Your task to perform on an android device: turn notification dots on Image 0: 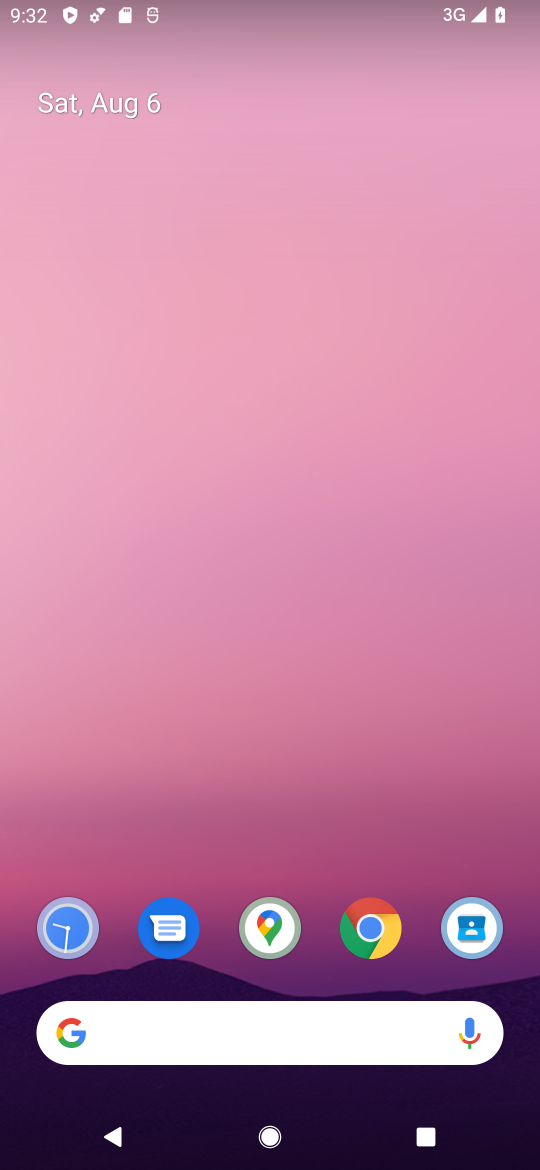
Step 0: drag from (239, 818) to (239, 155)
Your task to perform on an android device: turn notification dots on Image 1: 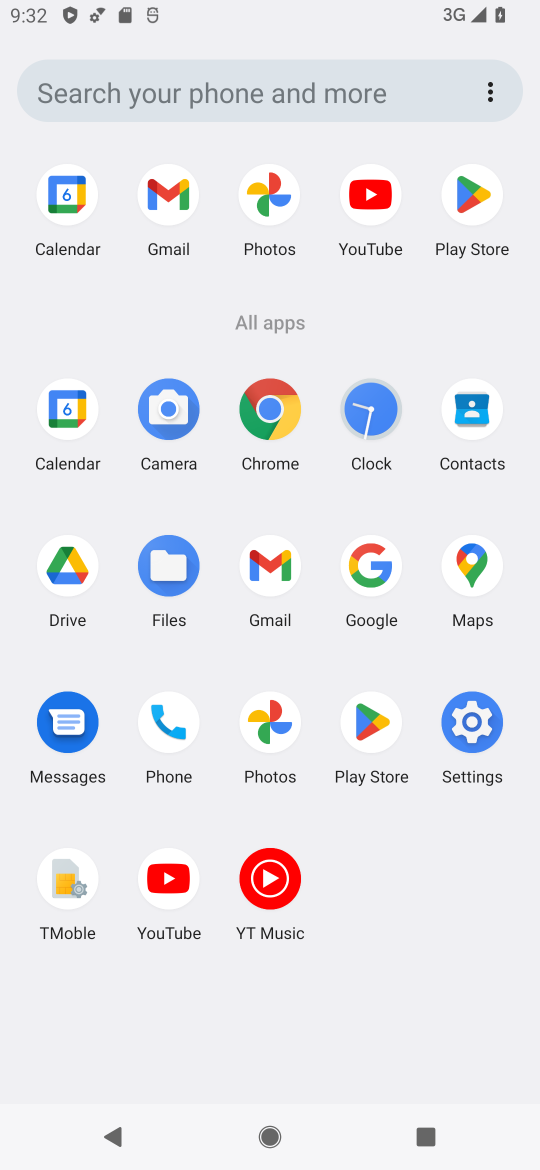
Step 1: click (468, 711)
Your task to perform on an android device: turn notification dots on Image 2: 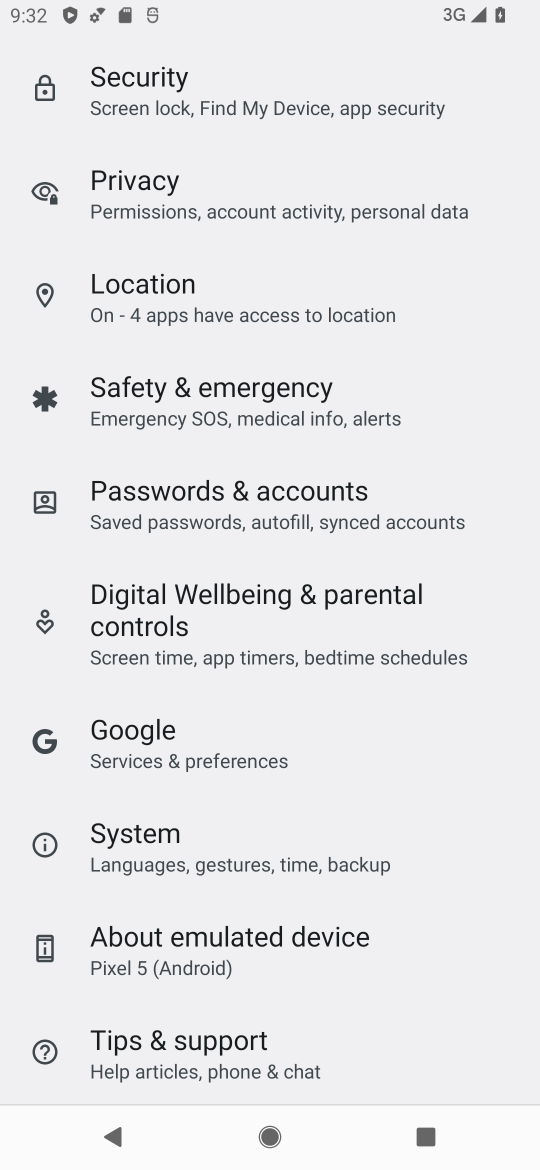
Step 2: drag from (288, 133) to (174, 745)
Your task to perform on an android device: turn notification dots on Image 3: 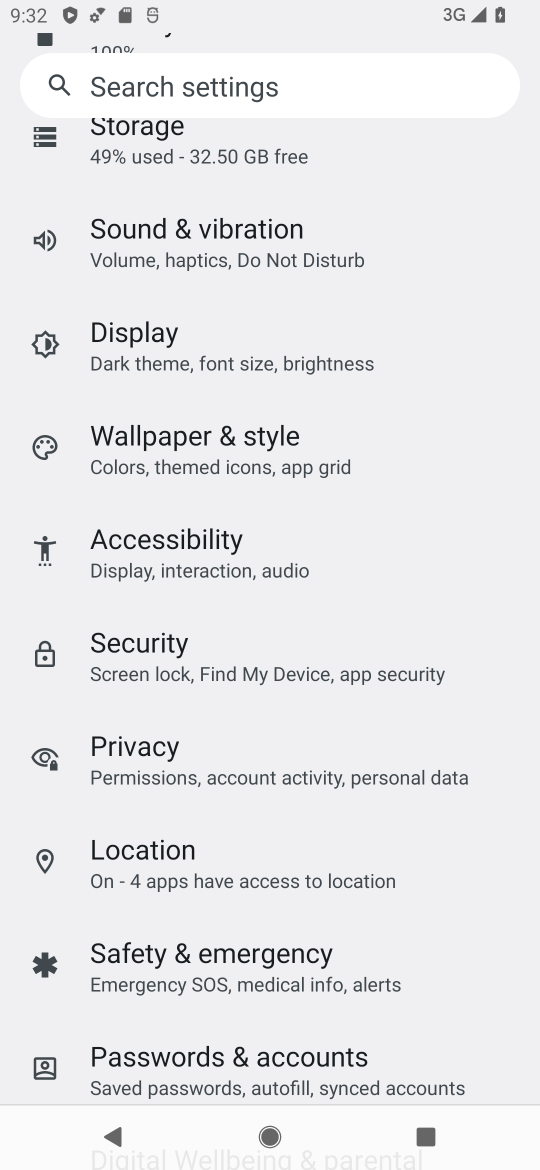
Step 3: drag from (370, 197) to (370, 825)
Your task to perform on an android device: turn notification dots on Image 4: 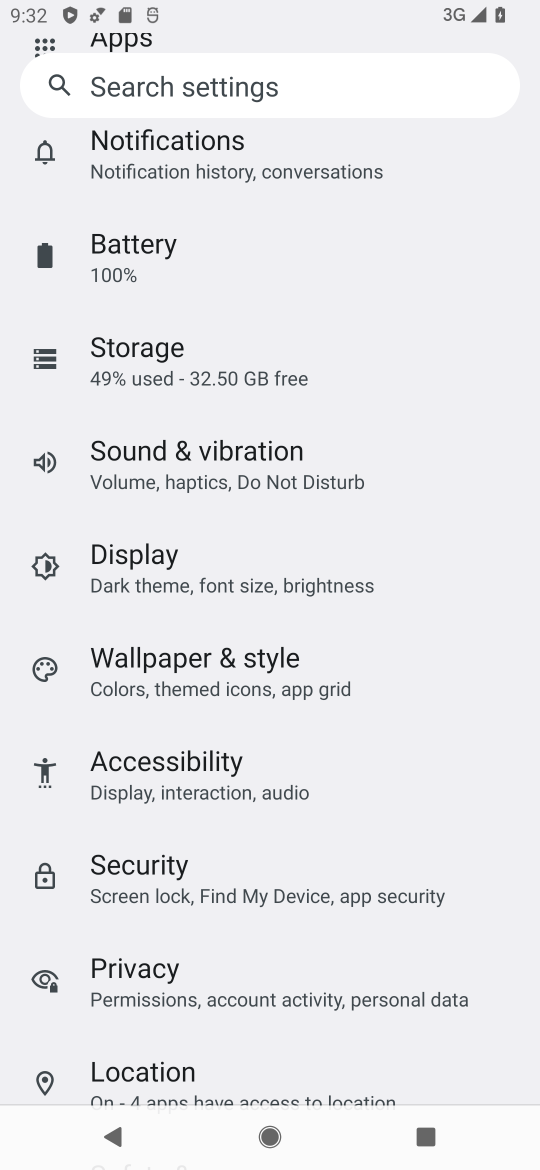
Step 4: click (167, 132)
Your task to perform on an android device: turn notification dots on Image 5: 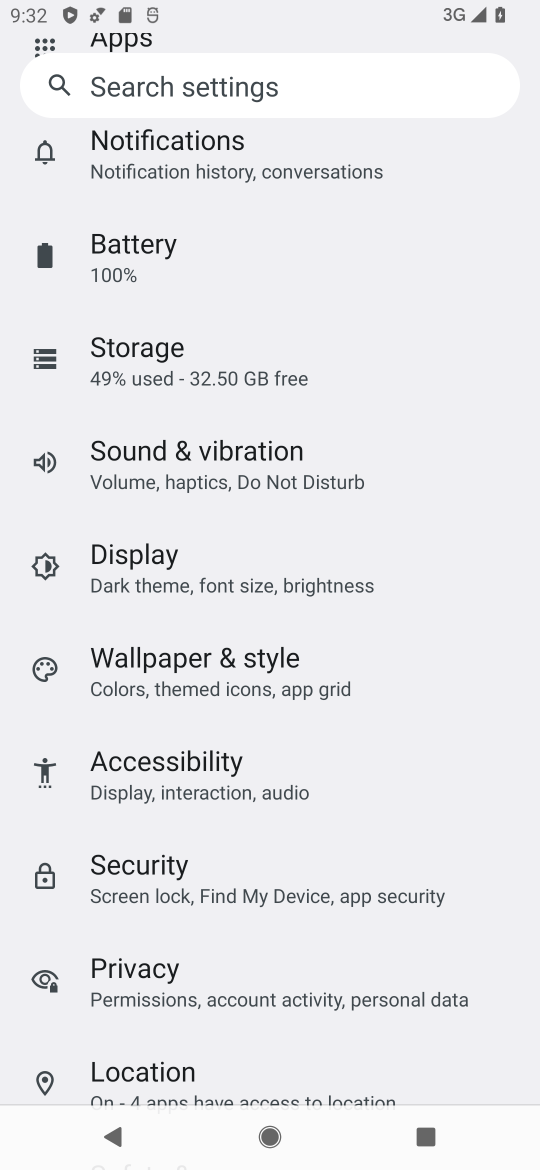
Step 5: drag from (389, 285) to (384, 560)
Your task to perform on an android device: turn notification dots on Image 6: 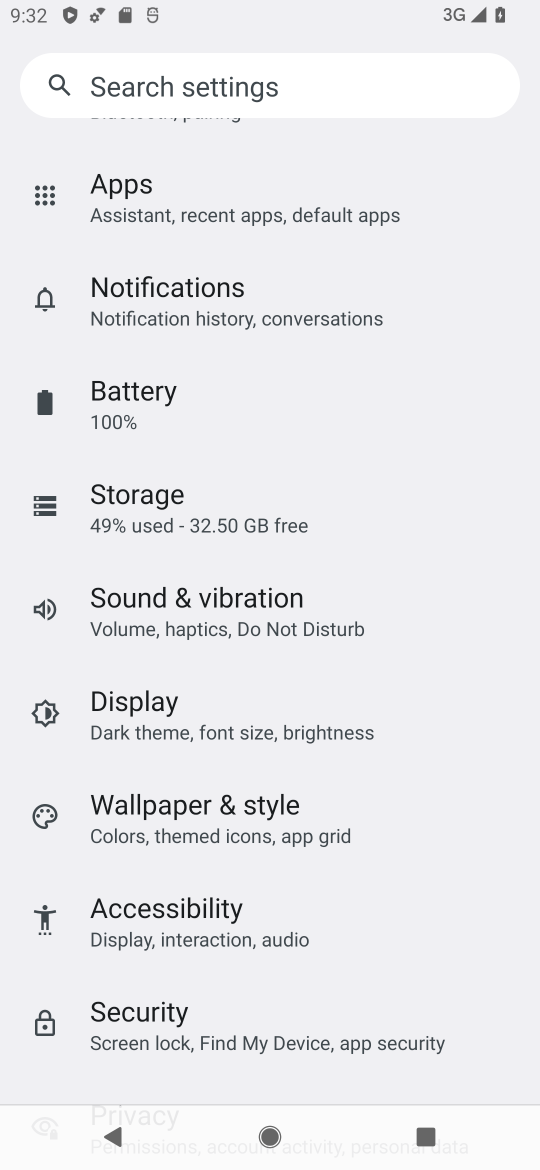
Step 6: click (189, 283)
Your task to perform on an android device: turn notification dots on Image 7: 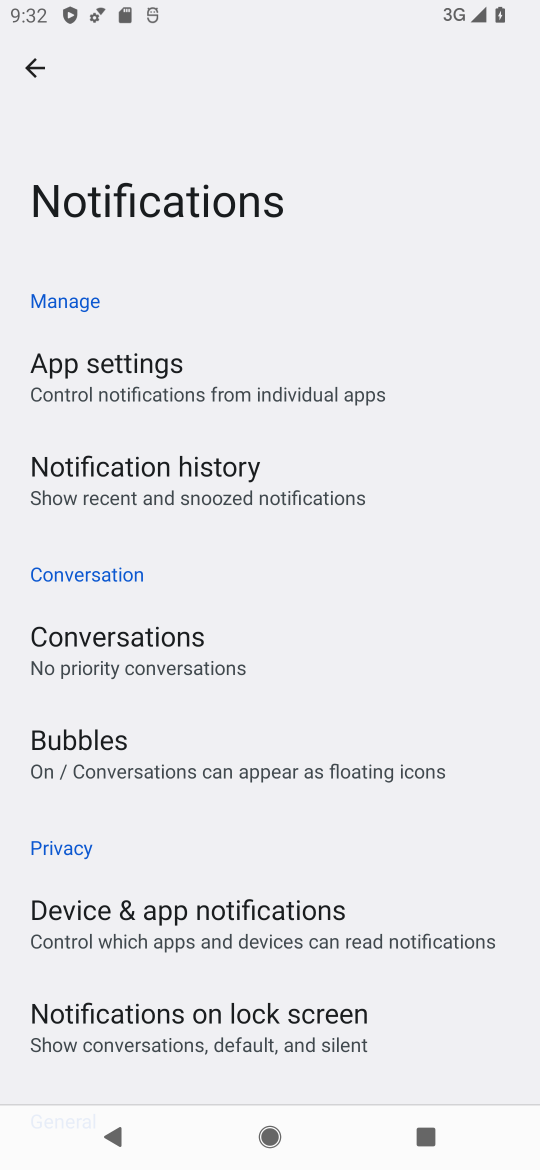
Step 7: drag from (318, 823) to (322, 472)
Your task to perform on an android device: turn notification dots on Image 8: 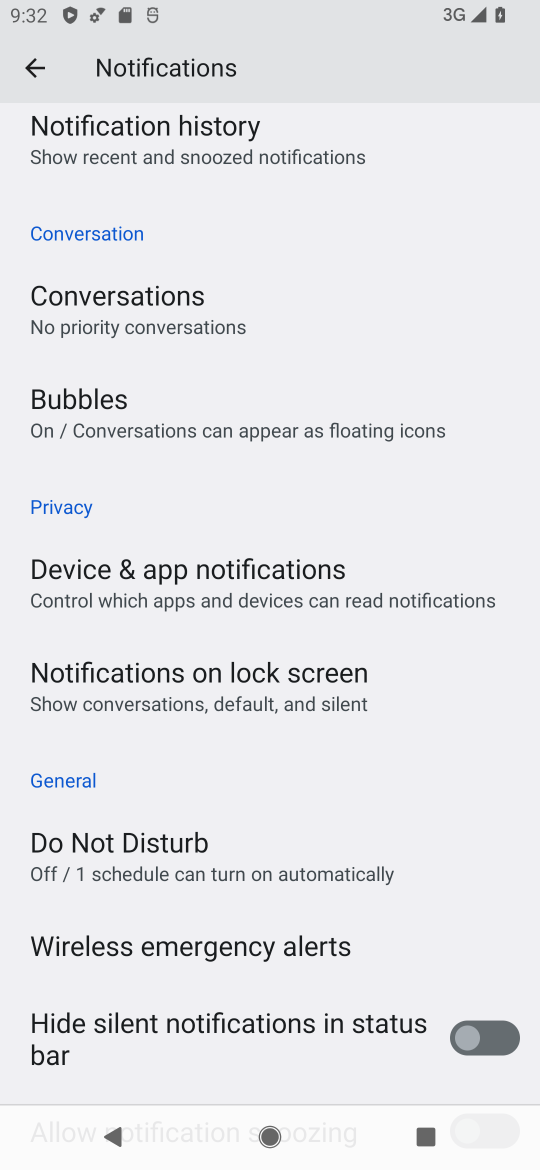
Step 8: drag from (334, 875) to (341, 408)
Your task to perform on an android device: turn notification dots on Image 9: 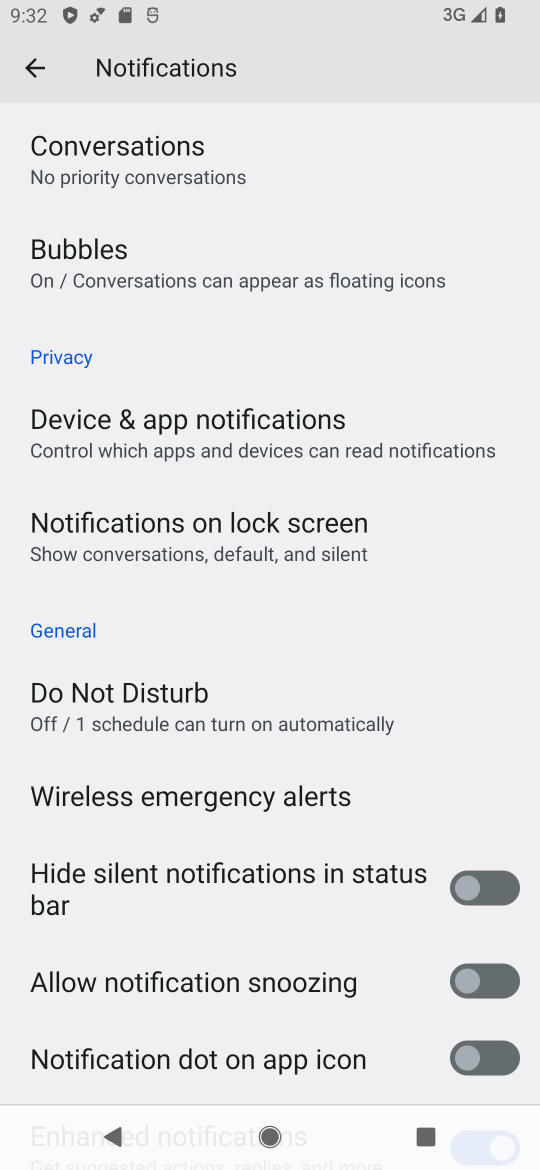
Step 9: click (468, 1052)
Your task to perform on an android device: turn notification dots on Image 10: 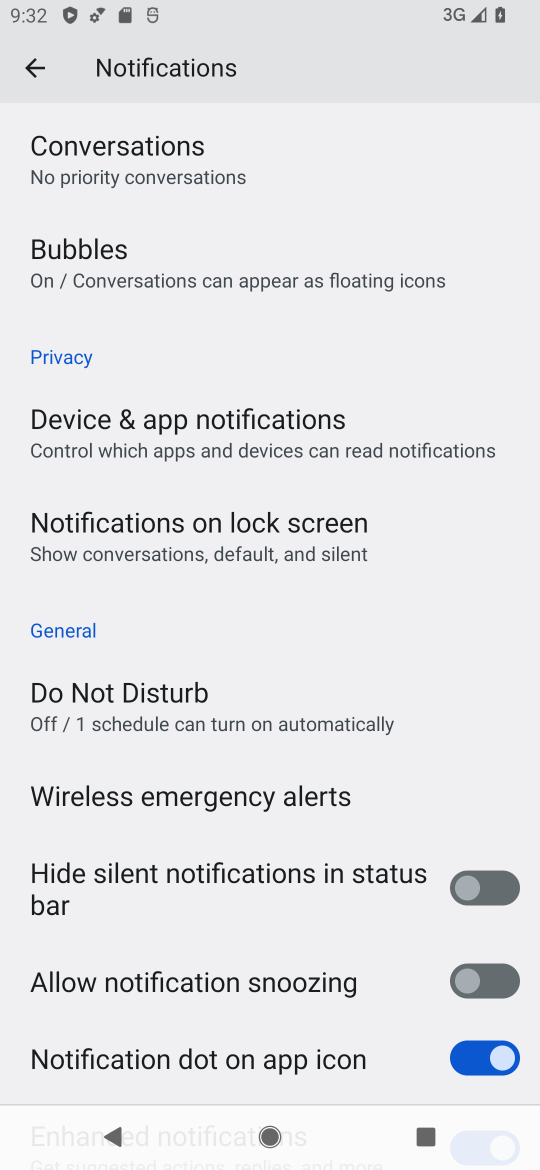
Step 10: task complete